Your task to perform on an android device: install app "Speedtest by Ookla" Image 0: 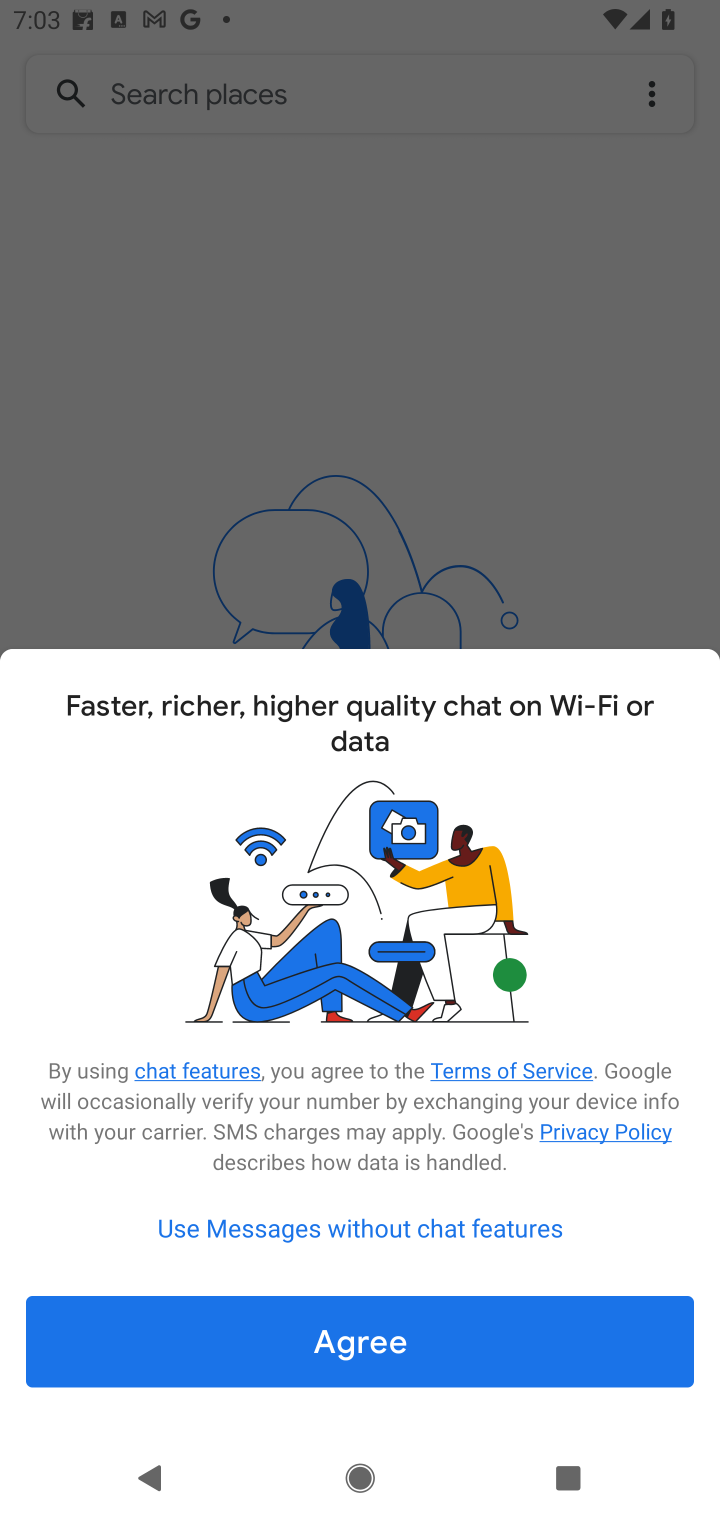
Step 0: press home button
Your task to perform on an android device: install app "Speedtest by Ookla" Image 1: 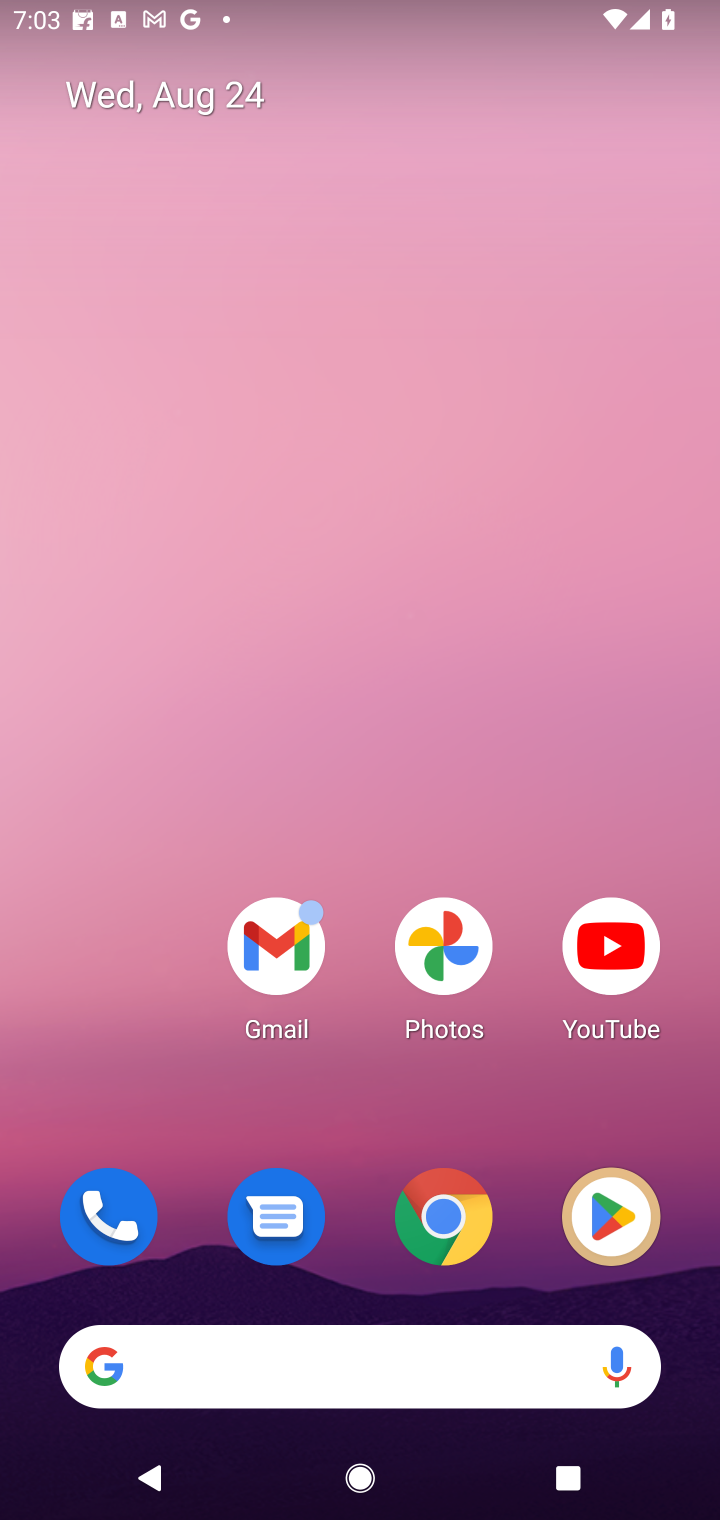
Step 1: click (592, 1248)
Your task to perform on an android device: install app "Speedtest by Ookla" Image 2: 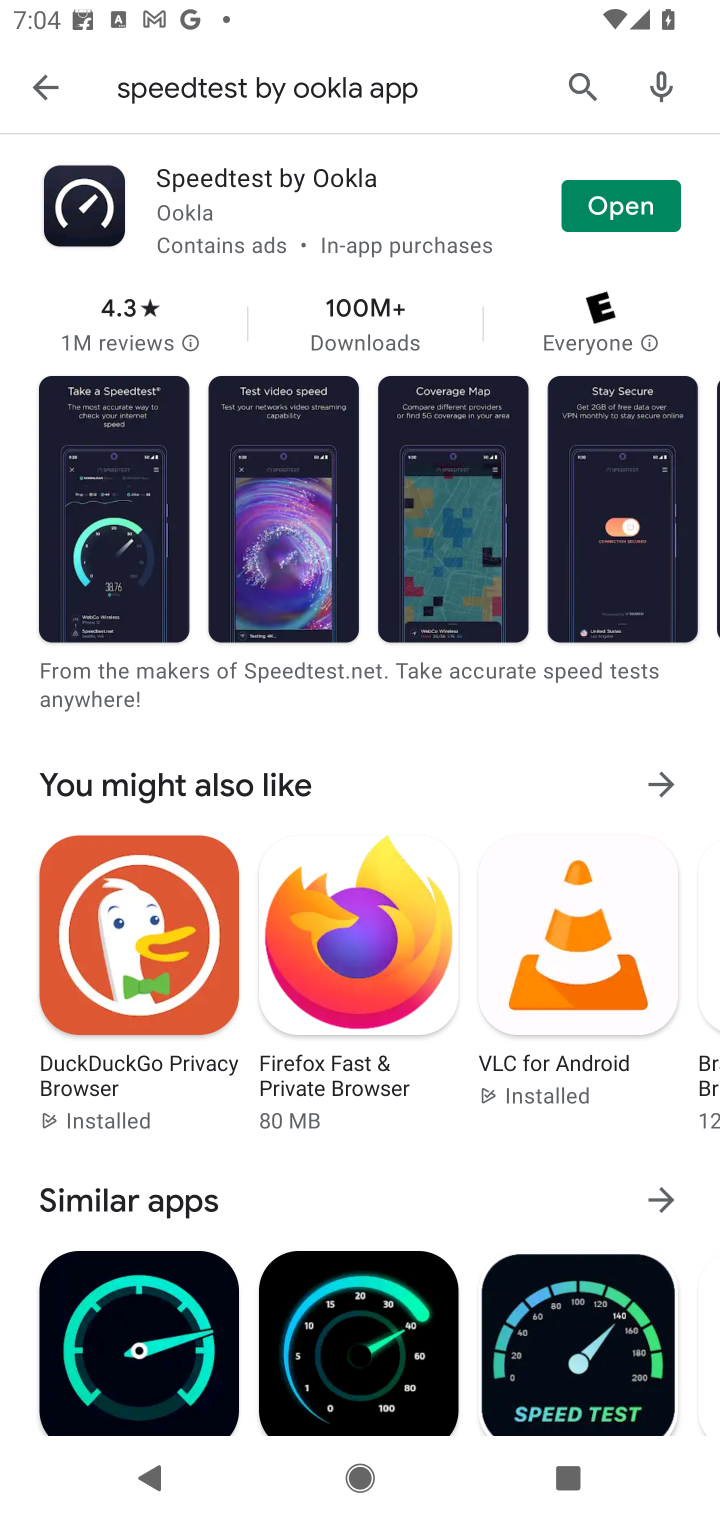
Step 2: task complete